Your task to perform on an android device: turn off data saver in the chrome app Image 0: 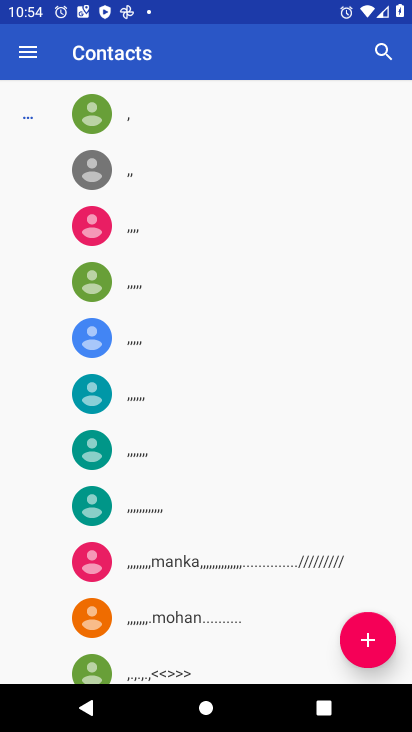
Step 0: press home button
Your task to perform on an android device: turn off data saver in the chrome app Image 1: 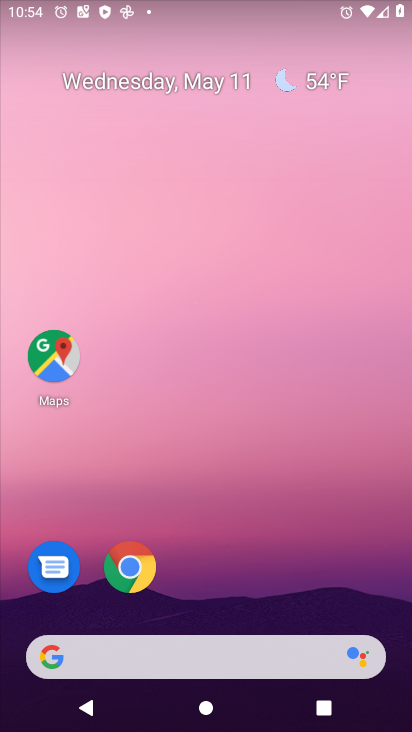
Step 1: drag from (235, 543) to (350, 0)
Your task to perform on an android device: turn off data saver in the chrome app Image 2: 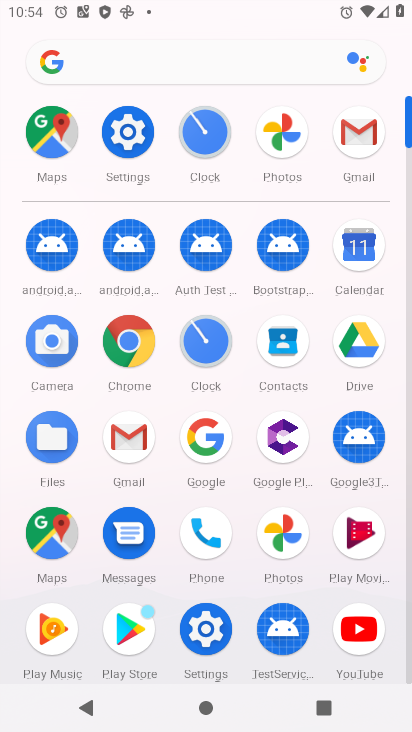
Step 2: click (121, 352)
Your task to perform on an android device: turn off data saver in the chrome app Image 3: 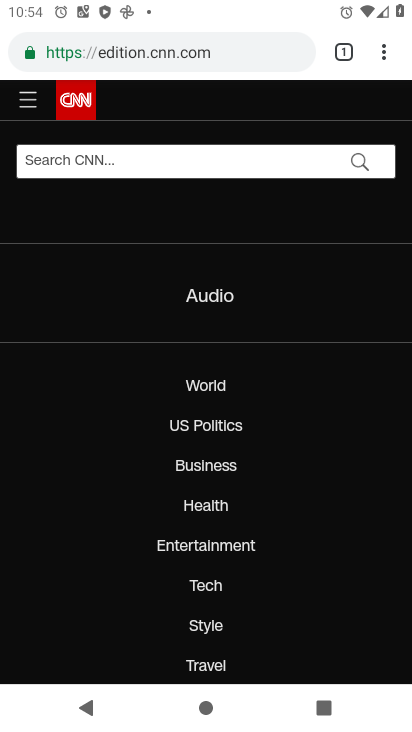
Step 3: click (383, 48)
Your task to perform on an android device: turn off data saver in the chrome app Image 4: 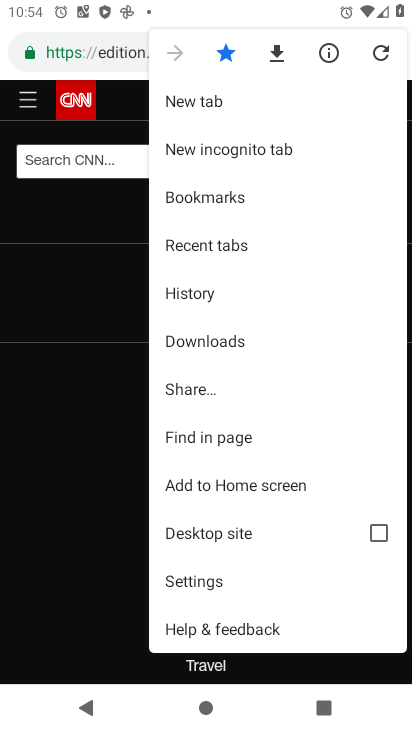
Step 4: click (179, 582)
Your task to perform on an android device: turn off data saver in the chrome app Image 5: 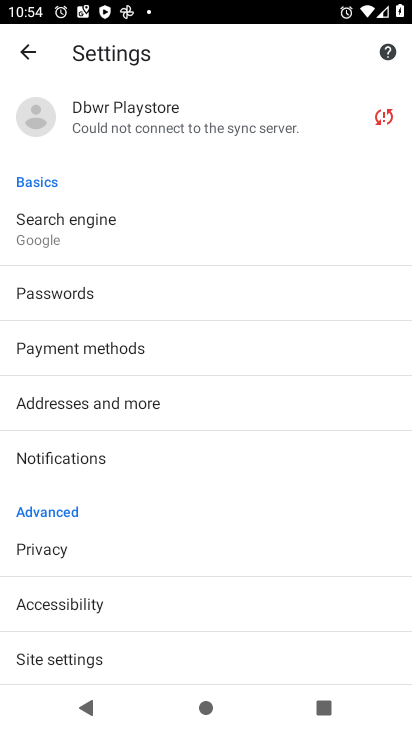
Step 5: drag from (81, 600) to (221, 166)
Your task to perform on an android device: turn off data saver in the chrome app Image 6: 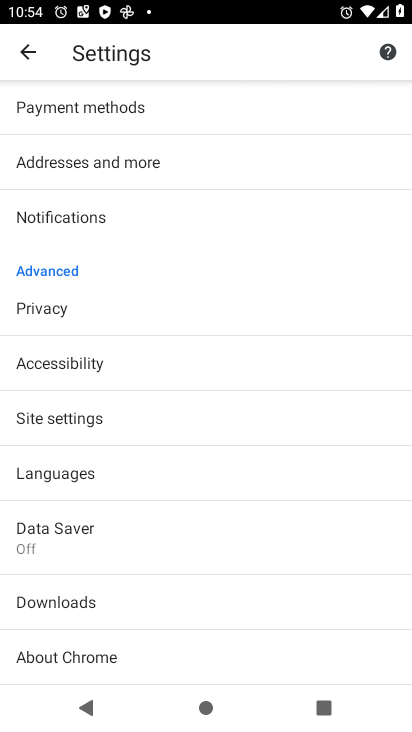
Step 6: click (63, 524)
Your task to perform on an android device: turn off data saver in the chrome app Image 7: 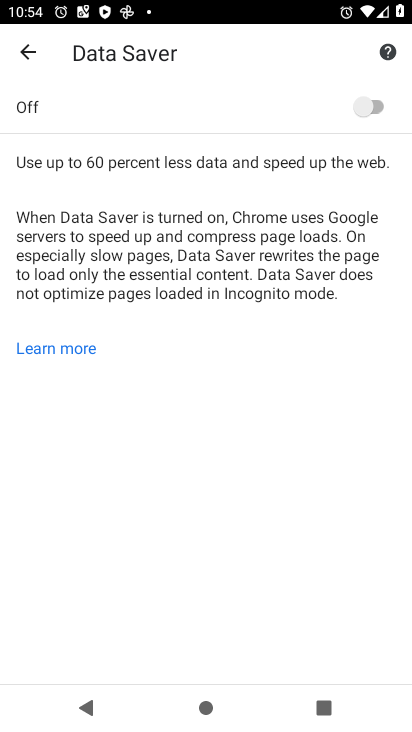
Step 7: task complete